Your task to perform on an android device: toggle translation in the chrome app Image 0: 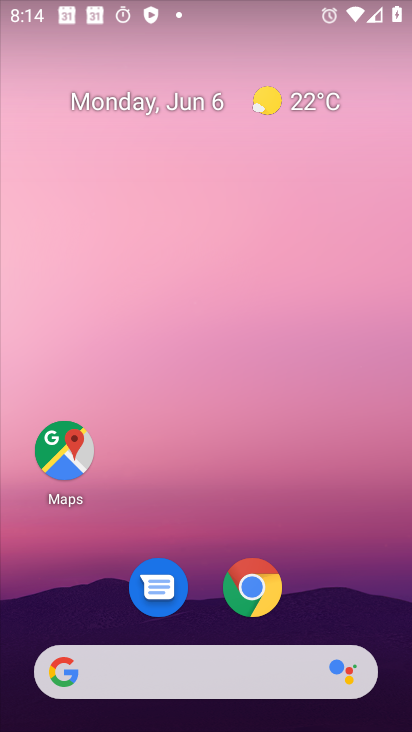
Step 0: click (253, 586)
Your task to perform on an android device: toggle translation in the chrome app Image 1: 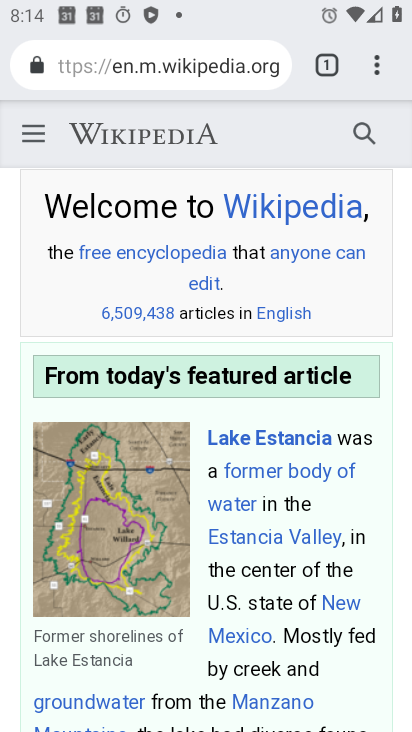
Step 1: click (370, 64)
Your task to perform on an android device: toggle translation in the chrome app Image 2: 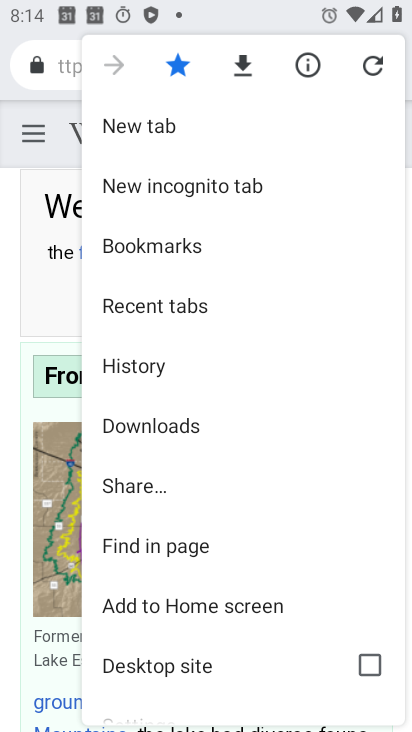
Step 2: drag from (135, 672) to (137, 284)
Your task to perform on an android device: toggle translation in the chrome app Image 3: 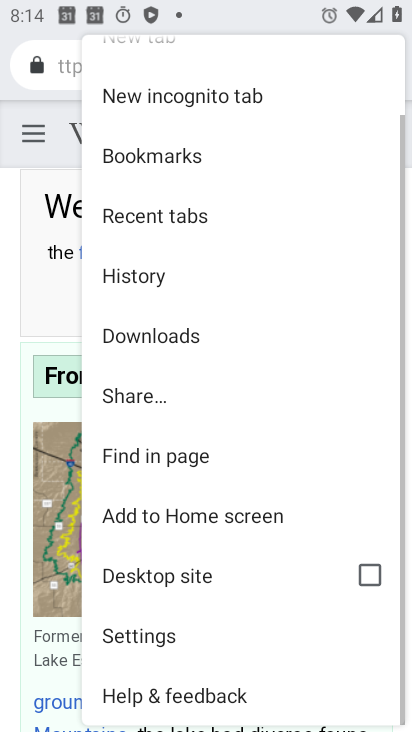
Step 3: click (172, 642)
Your task to perform on an android device: toggle translation in the chrome app Image 4: 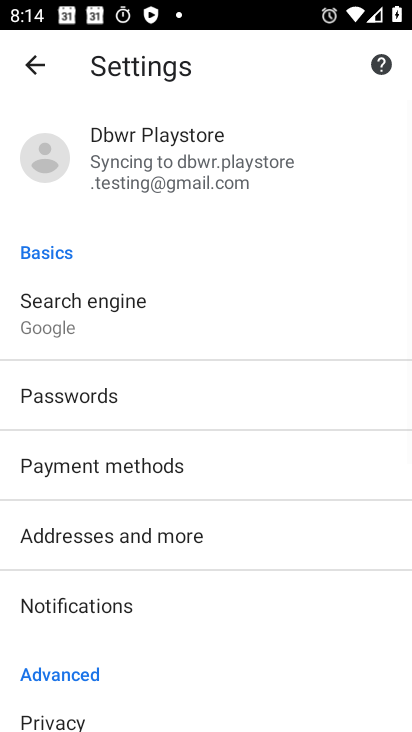
Step 4: drag from (129, 585) to (129, 337)
Your task to perform on an android device: toggle translation in the chrome app Image 5: 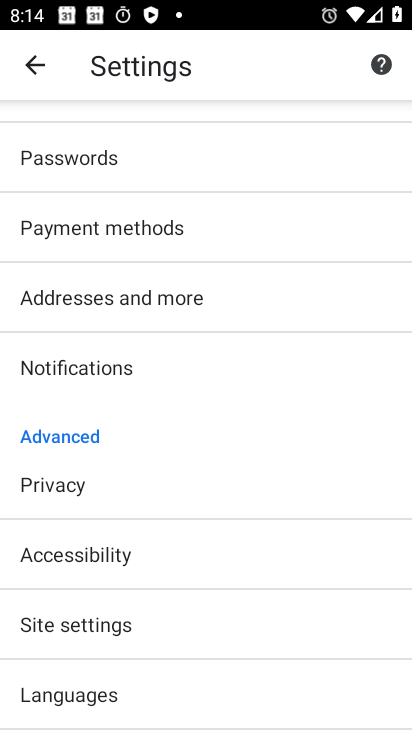
Step 5: click (105, 704)
Your task to perform on an android device: toggle translation in the chrome app Image 6: 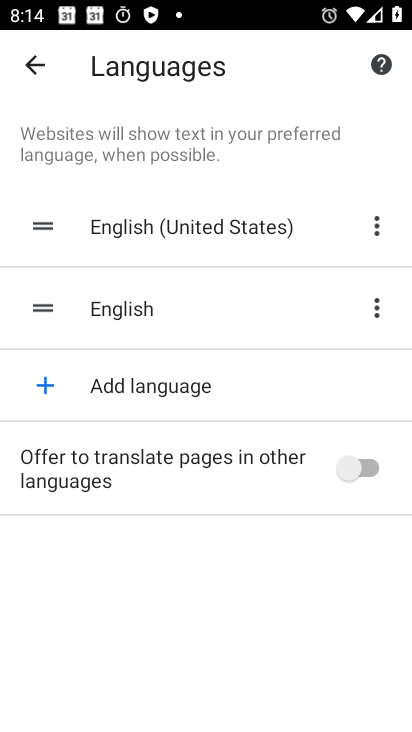
Step 6: click (368, 469)
Your task to perform on an android device: toggle translation in the chrome app Image 7: 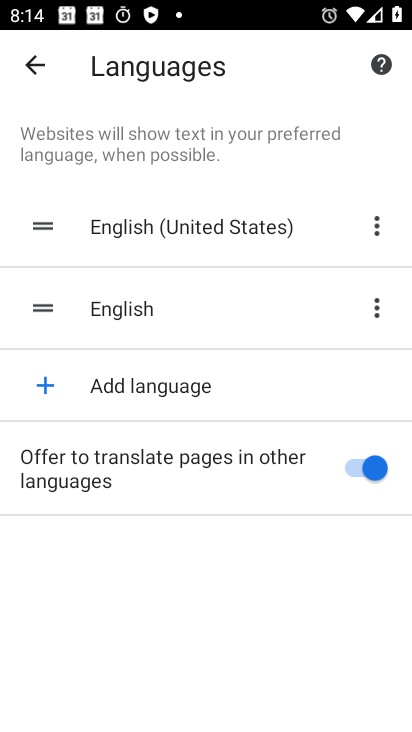
Step 7: task complete